Your task to perform on an android device: turn off data saver in the chrome app Image 0: 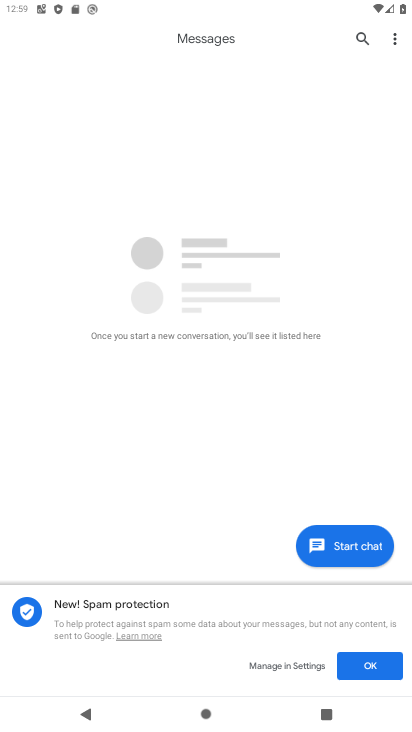
Step 0: press home button
Your task to perform on an android device: turn off data saver in the chrome app Image 1: 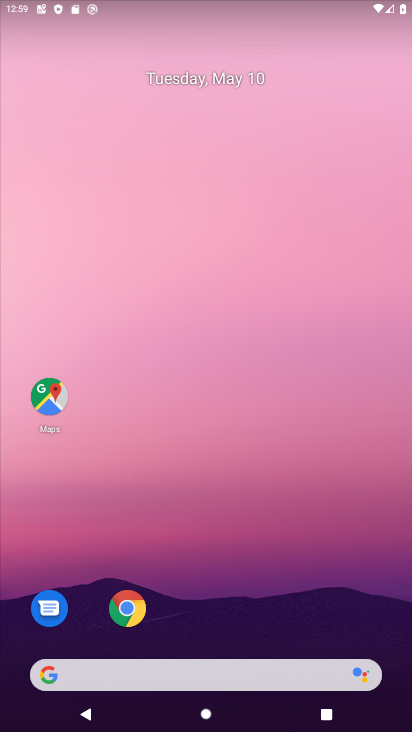
Step 1: drag from (355, 593) to (357, 107)
Your task to perform on an android device: turn off data saver in the chrome app Image 2: 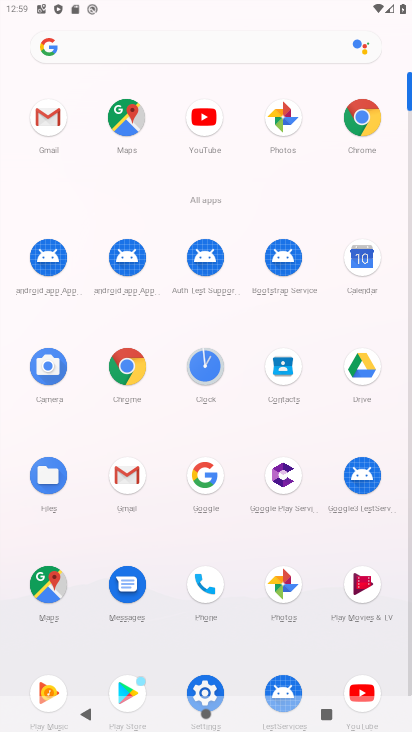
Step 2: click (123, 382)
Your task to perform on an android device: turn off data saver in the chrome app Image 3: 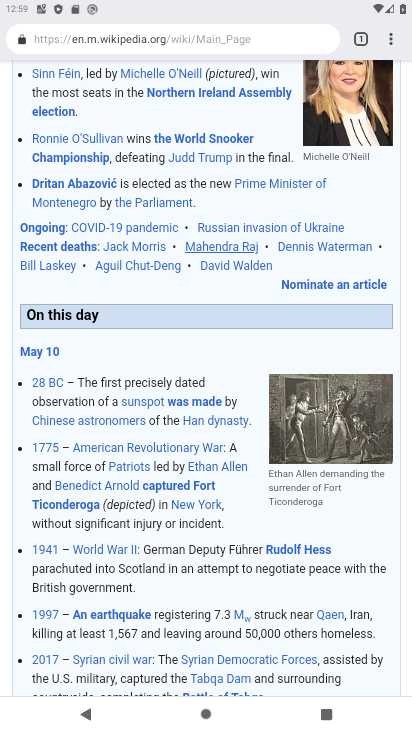
Step 3: drag from (400, 44) to (273, 470)
Your task to perform on an android device: turn off data saver in the chrome app Image 4: 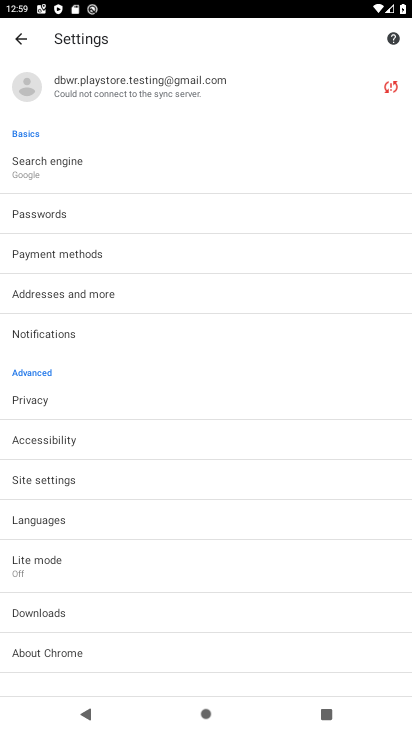
Step 4: drag from (116, 613) to (163, 255)
Your task to perform on an android device: turn off data saver in the chrome app Image 5: 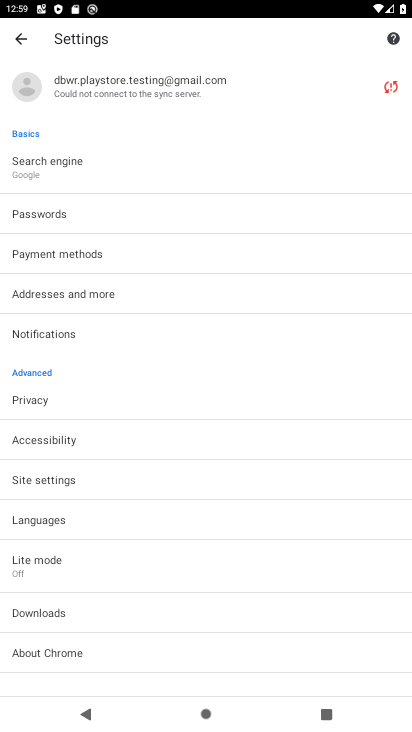
Step 5: click (105, 565)
Your task to perform on an android device: turn off data saver in the chrome app Image 6: 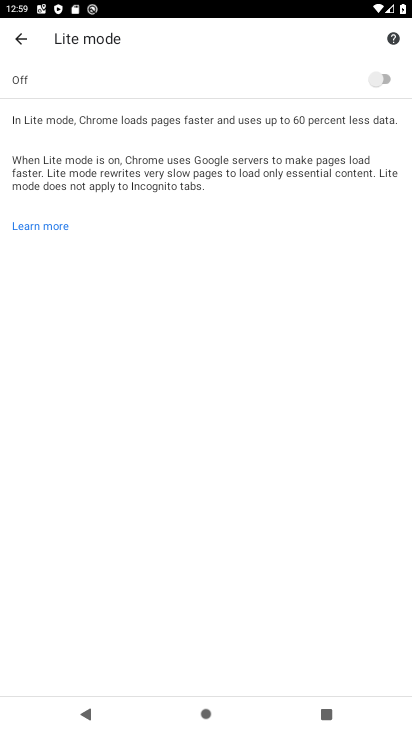
Step 6: task complete